Your task to perform on an android device: change alarm snooze length Image 0: 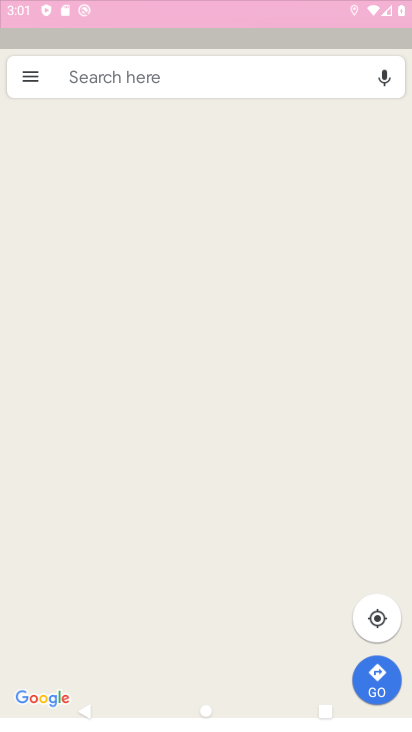
Step 0: press home button
Your task to perform on an android device: change alarm snooze length Image 1: 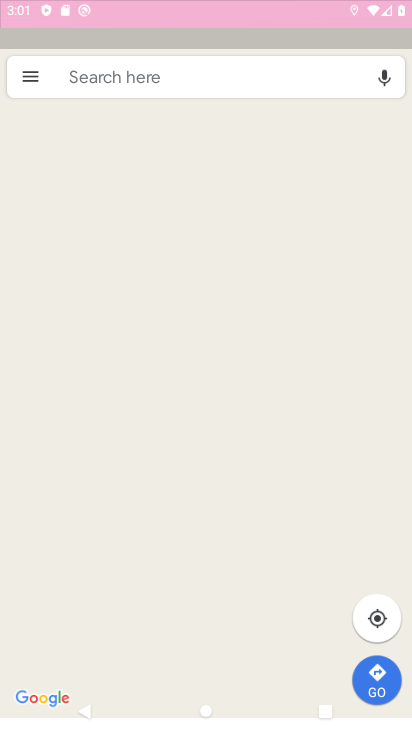
Step 1: click (240, 141)
Your task to perform on an android device: change alarm snooze length Image 2: 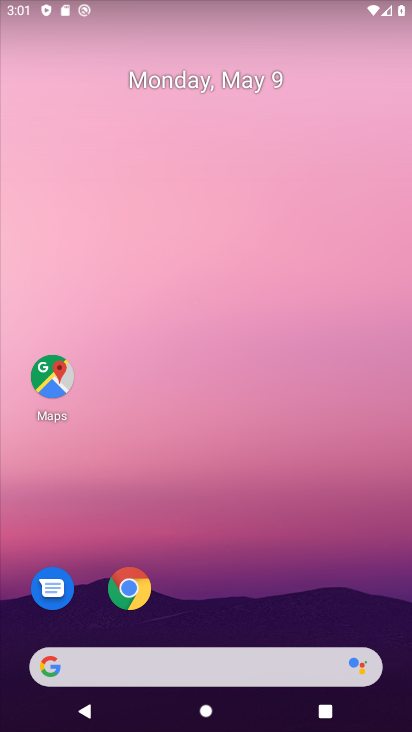
Step 2: drag from (176, 597) to (222, 128)
Your task to perform on an android device: change alarm snooze length Image 3: 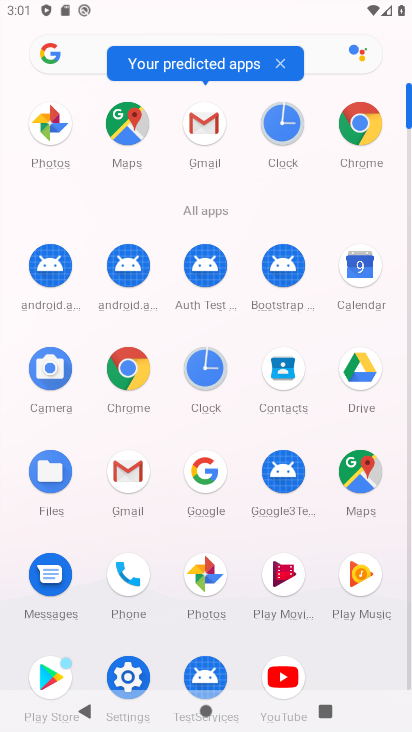
Step 3: click (200, 375)
Your task to perform on an android device: change alarm snooze length Image 4: 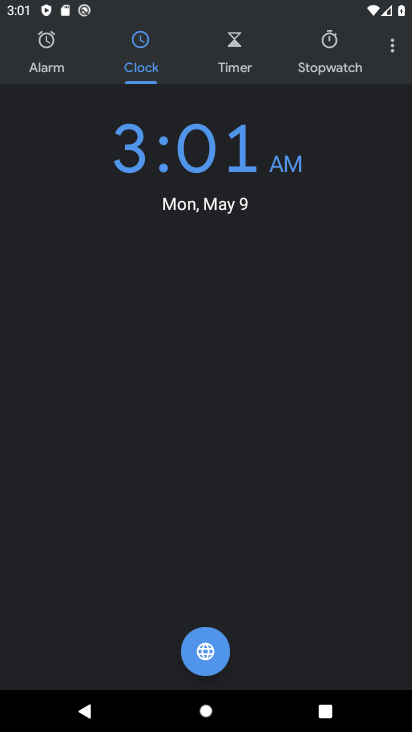
Step 4: click (383, 42)
Your task to perform on an android device: change alarm snooze length Image 5: 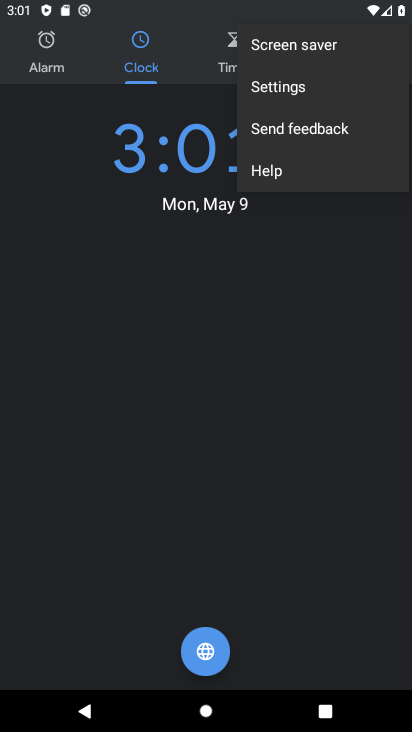
Step 5: click (282, 91)
Your task to perform on an android device: change alarm snooze length Image 6: 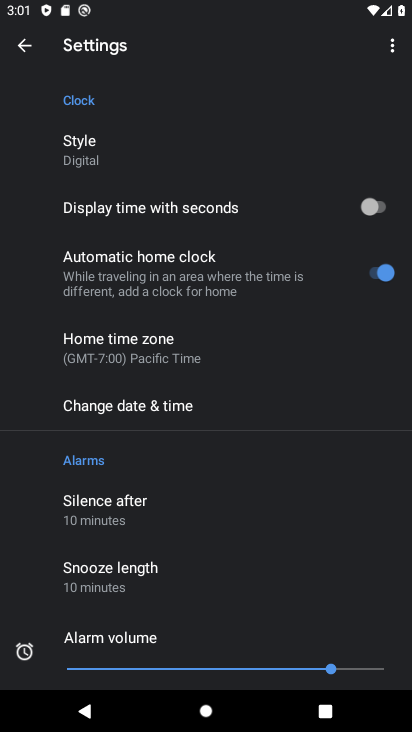
Step 6: click (126, 575)
Your task to perform on an android device: change alarm snooze length Image 7: 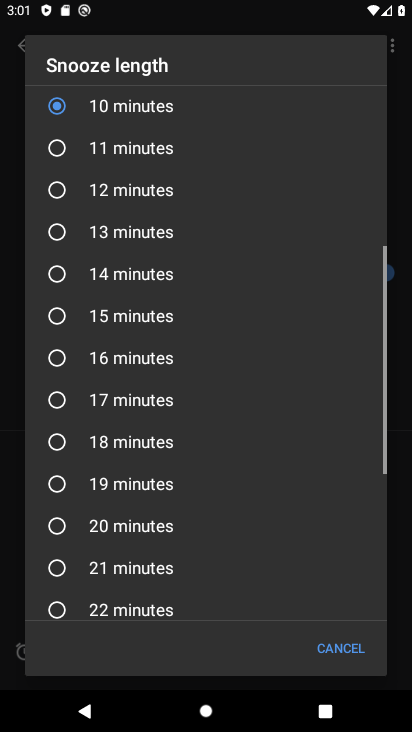
Step 7: click (48, 388)
Your task to perform on an android device: change alarm snooze length Image 8: 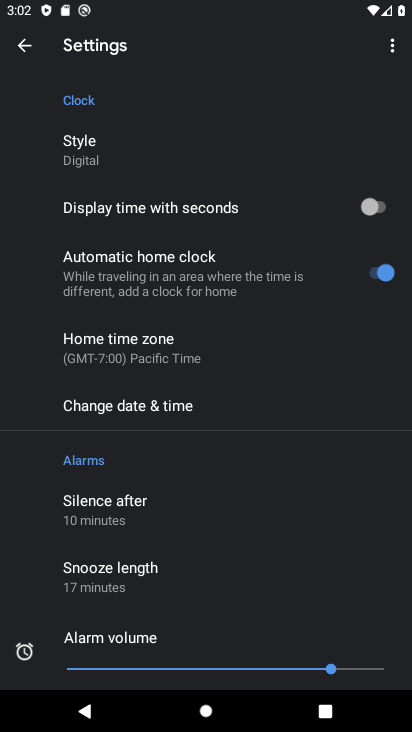
Step 8: task complete